Your task to perform on an android device: Open Chrome and go to settings Image 0: 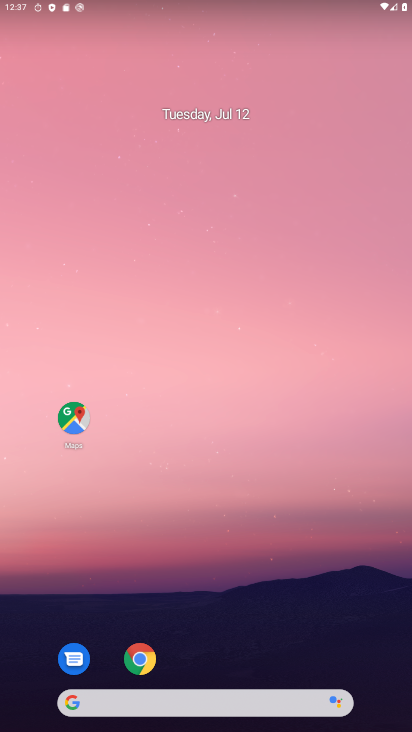
Step 0: click (142, 657)
Your task to perform on an android device: Open Chrome and go to settings Image 1: 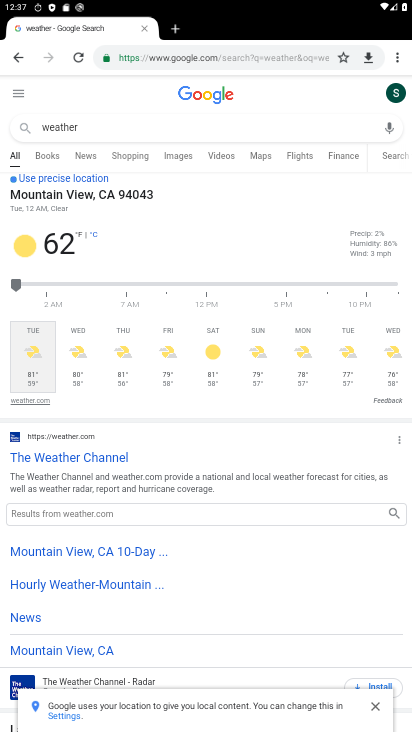
Step 1: task complete